Your task to perform on an android device: Go to Yahoo.com Image 0: 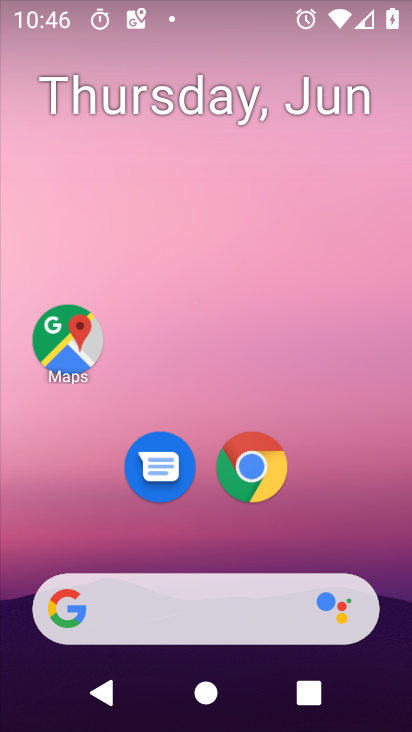
Step 0: click (242, 484)
Your task to perform on an android device: Go to Yahoo.com Image 1: 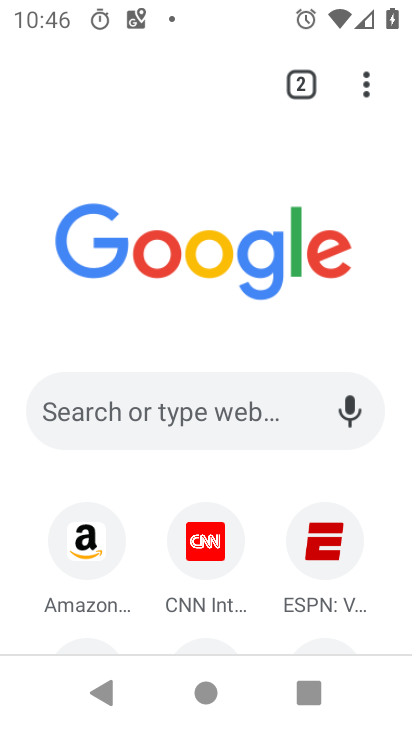
Step 1: drag from (20, 582) to (232, 232)
Your task to perform on an android device: Go to Yahoo.com Image 2: 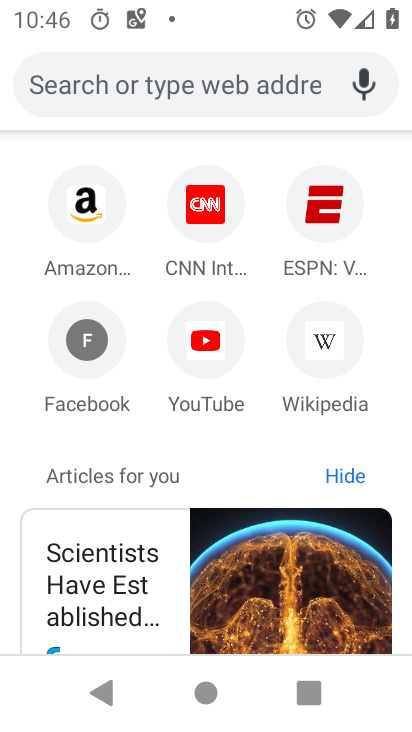
Step 2: click (220, 93)
Your task to perform on an android device: Go to Yahoo.com Image 3: 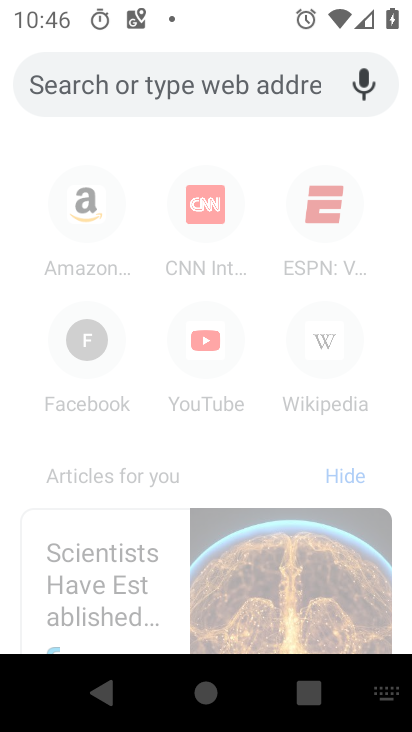
Step 3: type "Yahoo.com"
Your task to perform on an android device: Go to Yahoo.com Image 4: 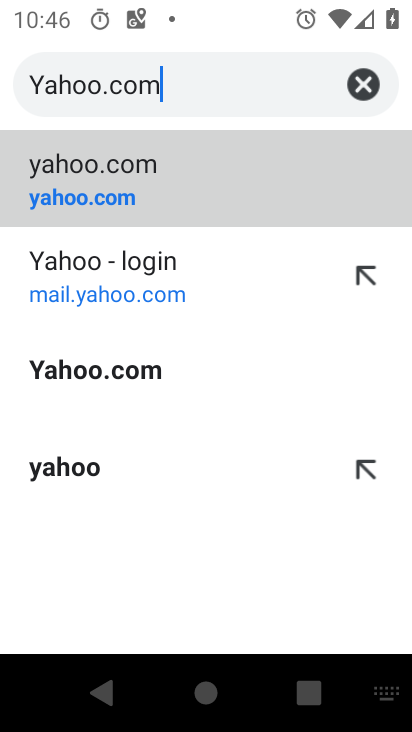
Step 4: type ""
Your task to perform on an android device: Go to Yahoo.com Image 5: 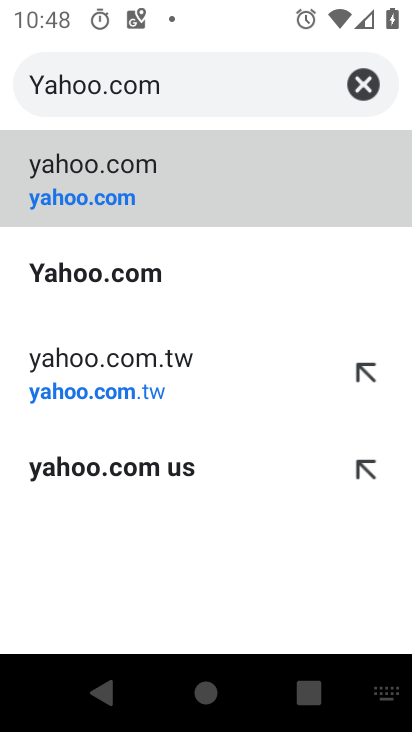
Step 5: click (115, 147)
Your task to perform on an android device: Go to Yahoo.com Image 6: 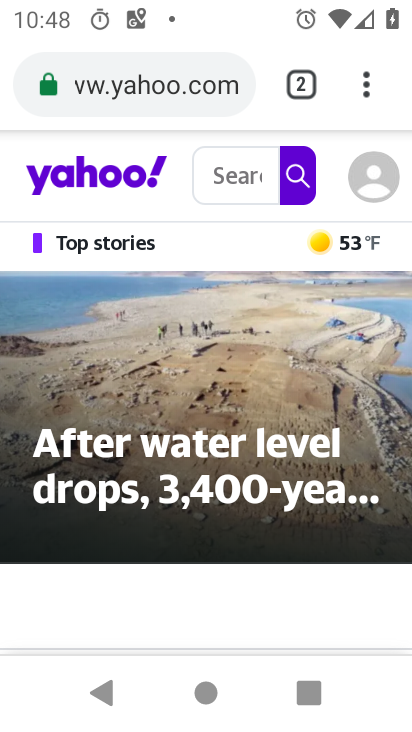
Step 6: task complete